Your task to perform on an android device: Open accessibility settings Image 0: 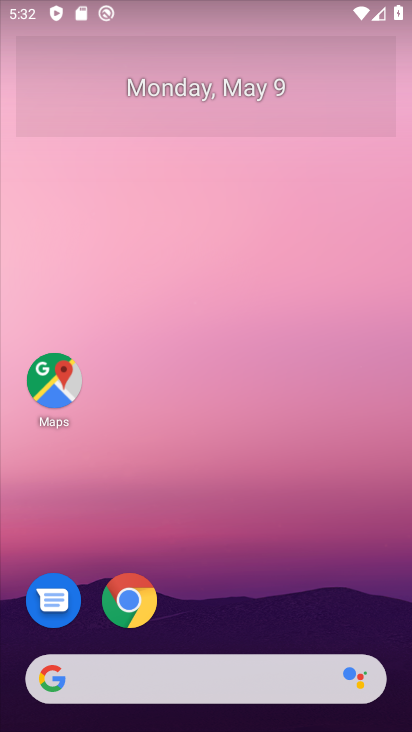
Step 0: drag from (230, 635) to (263, 291)
Your task to perform on an android device: Open accessibility settings Image 1: 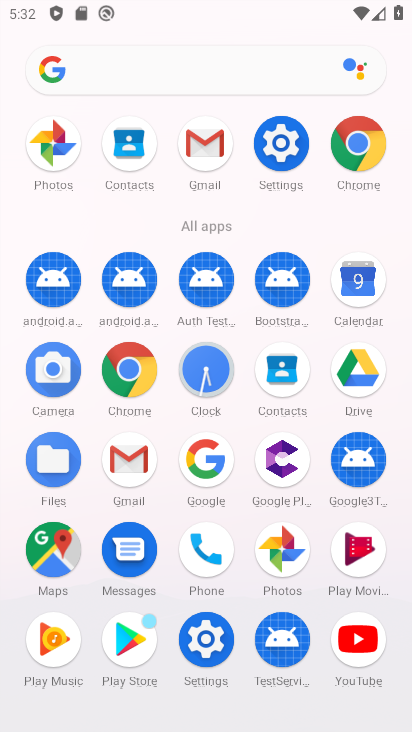
Step 1: click (284, 152)
Your task to perform on an android device: Open accessibility settings Image 2: 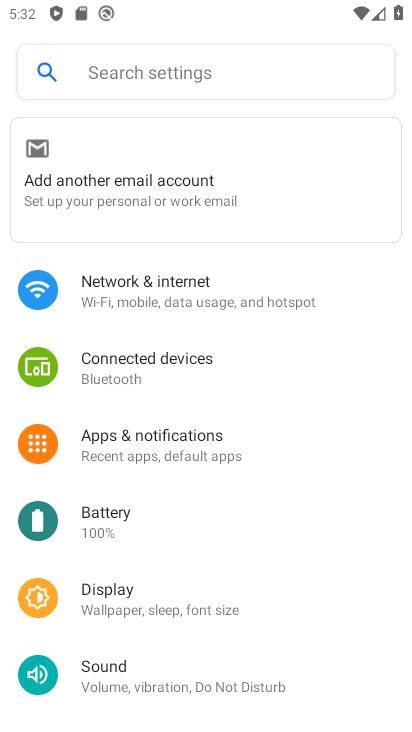
Step 2: drag from (182, 497) to (217, 136)
Your task to perform on an android device: Open accessibility settings Image 3: 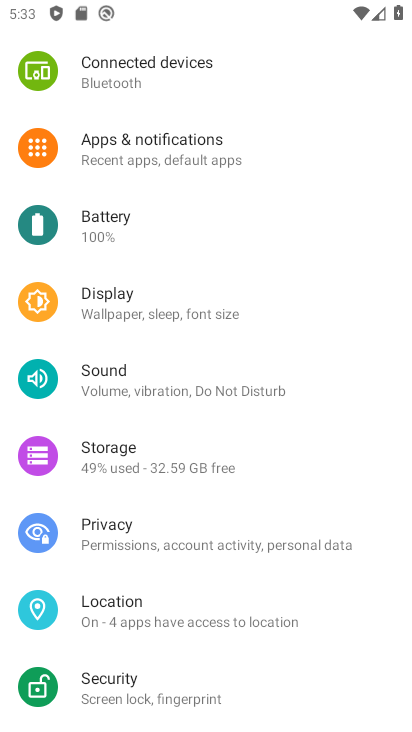
Step 3: drag from (171, 634) to (170, 313)
Your task to perform on an android device: Open accessibility settings Image 4: 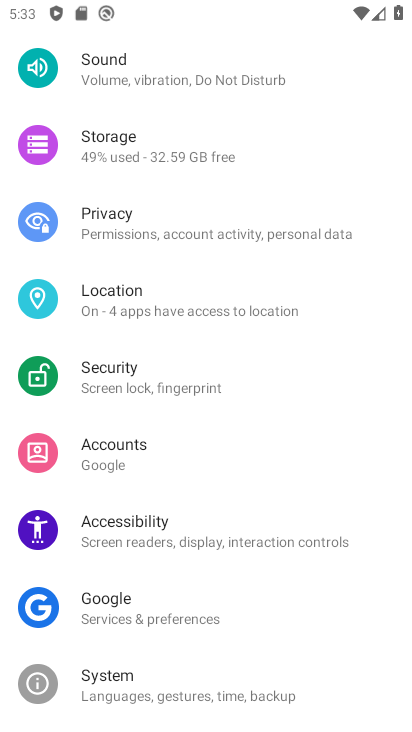
Step 4: click (129, 543)
Your task to perform on an android device: Open accessibility settings Image 5: 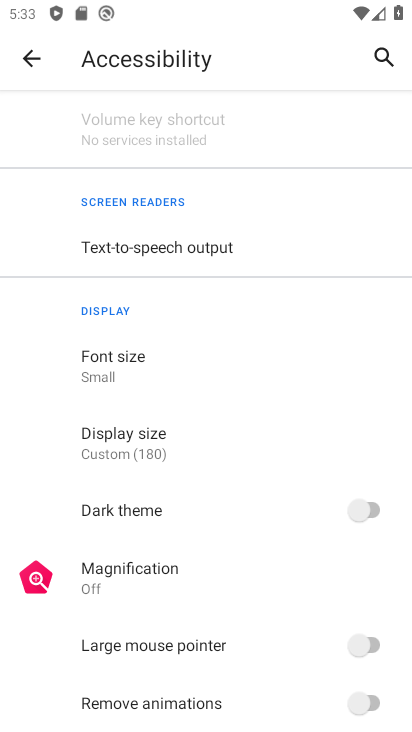
Step 5: task complete